Your task to perform on an android device: empty trash in the gmail app Image 0: 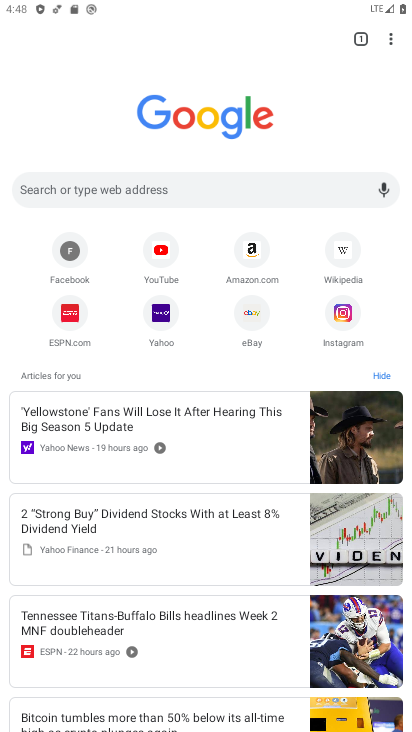
Step 0: press home button
Your task to perform on an android device: empty trash in the gmail app Image 1: 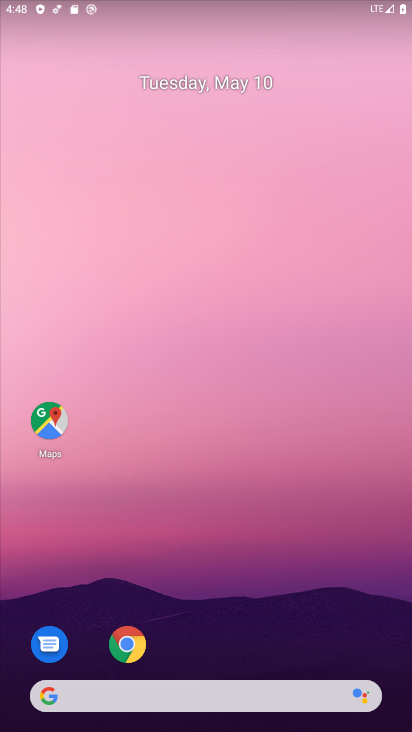
Step 1: drag from (211, 663) to (262, 207)
Your task to perform on an android device: empty trash in the gmail app Image 2: 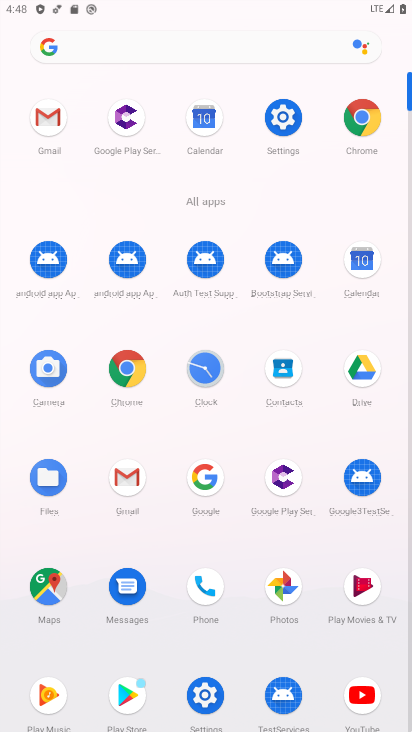
Step 2: click (128, 470)
Your task to perform on an android device: empty trash in the gmail app Image 3: 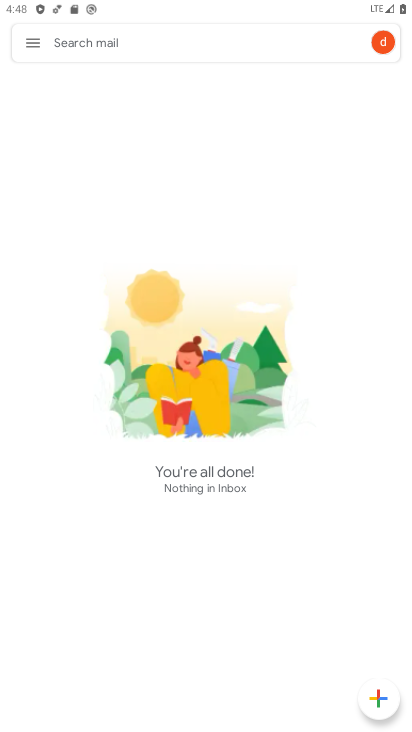
Step 3: click (27, 41)
Your task to perform on an android device: empty trash in the gmail app Image 4: 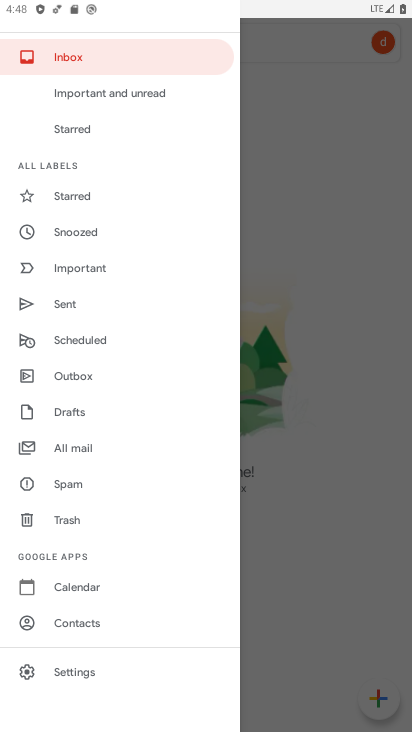
Step 4: click (87, 517)
Your task to perform on an android device: empty trash in the gmail app Image 5: 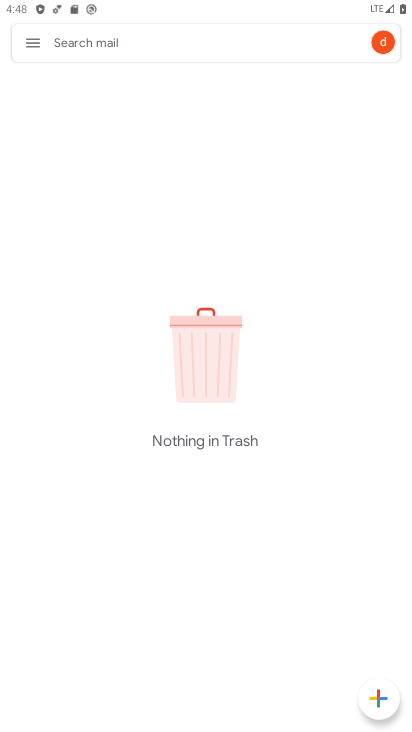
Step 5: task complete